Your task to perform on an android device: Open the map Image 0: 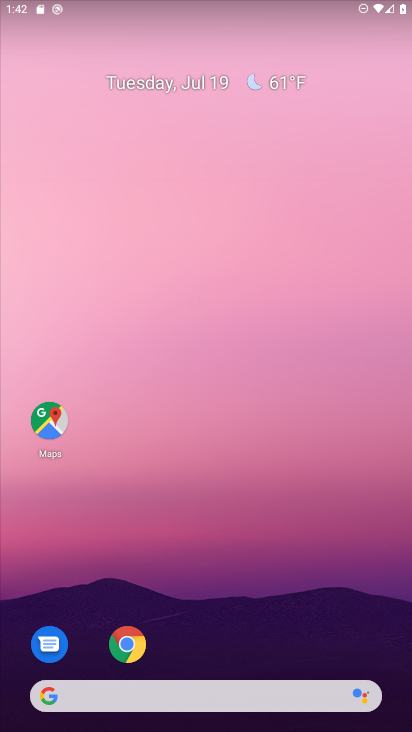
Step 0: drag from (202, 660) to (194, 142)
Your task to perform on an android device: Open the map Image 1: 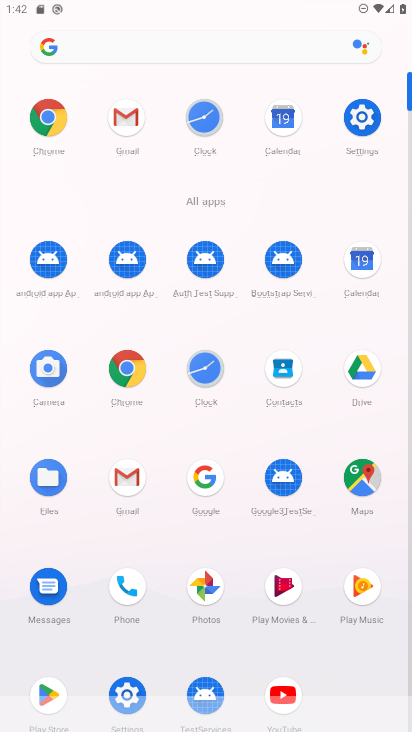
Step 1: click (379, 467)
Your task to perform on an android device: Open the map Image 2: 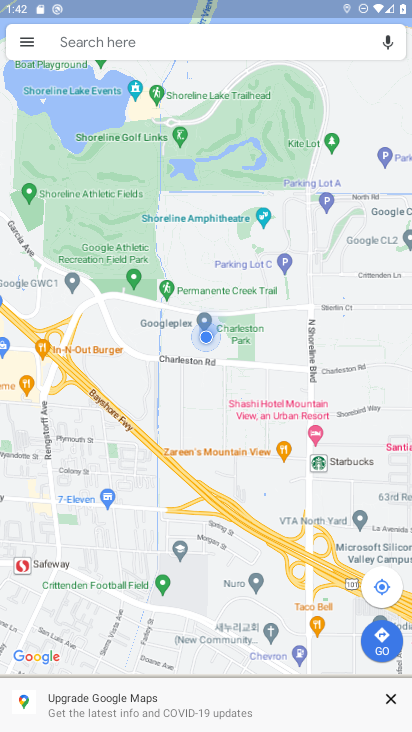
Step 2: task complete